Your task to perform on an android device: toggle wifi Image 0: 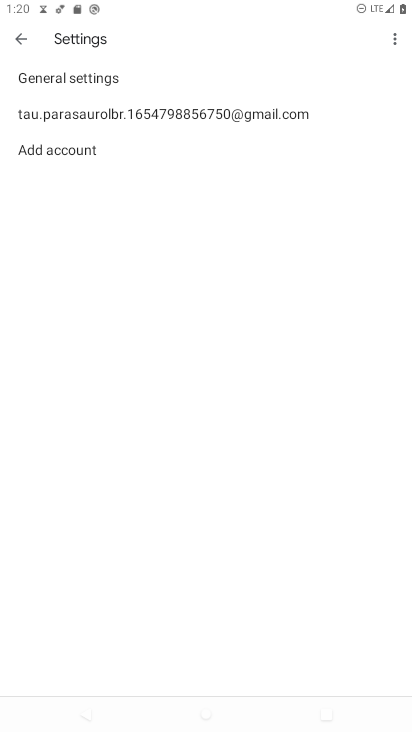
Step 0: press home button
Your task to perform on an android device: toggle wifi Image 1: 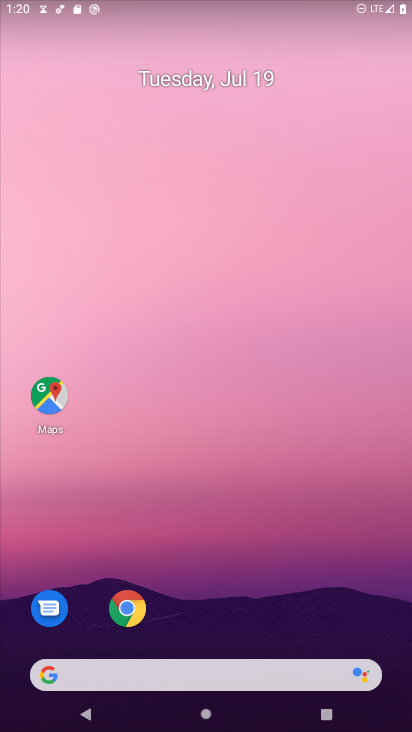
Step 1: drag from (304, 618) to (286, 18)
Your task to perform on an android device: toggle wifi Image 2: 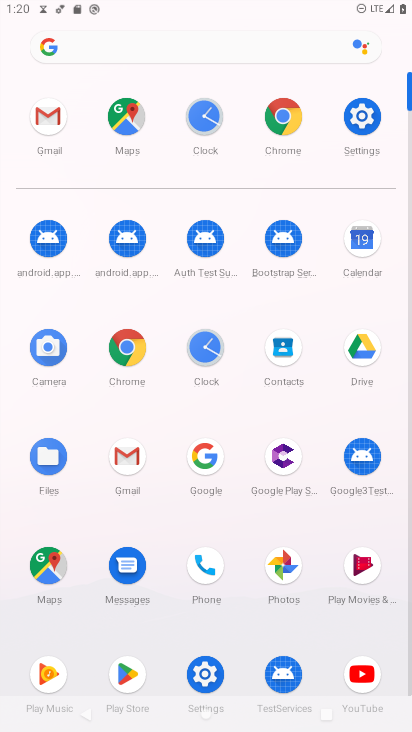
Step 2: click (209, 681)
Your task to perform on an android device: toggle wifi Image 3: 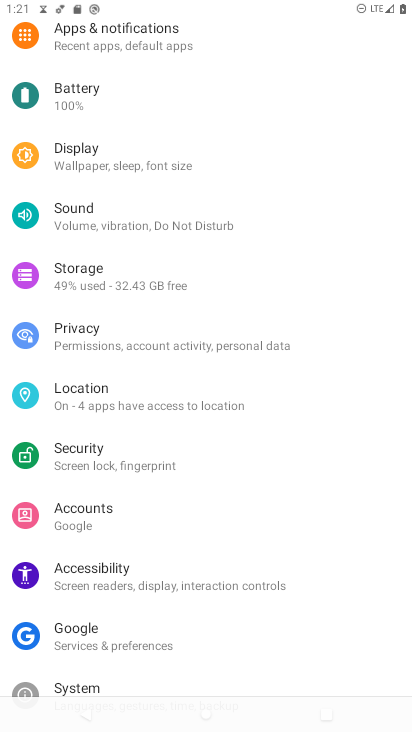
Step 3: drag from (149, 149) to (134, 661)
Your task to perform on an android device: toggle wifi Image 4: 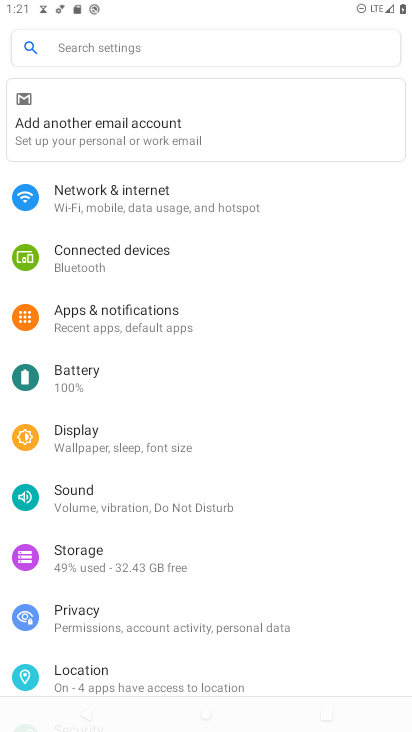
Step 4: click (159, 209)
Your task to perform on an android device: toggle wifi Image 5: 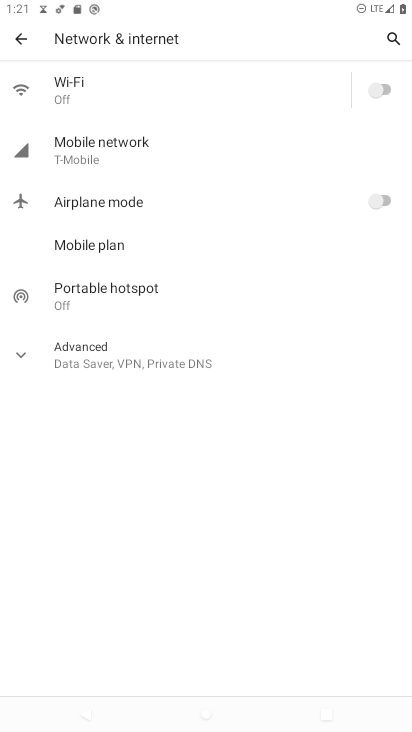
Step 5: click (381, 82)
Your task to perform on an android device: toggle wifi Image 6: 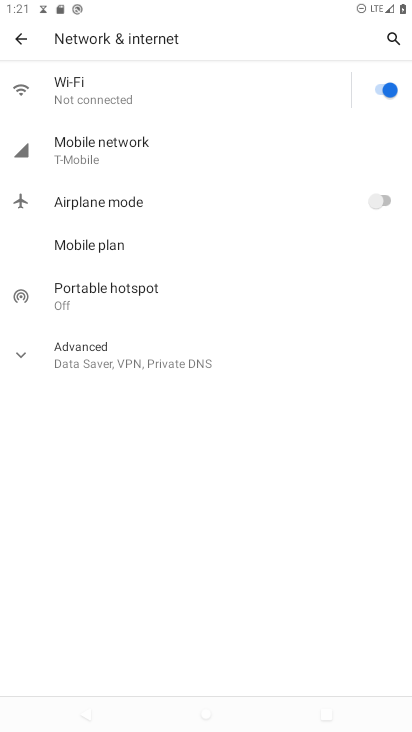
Step 6: task complete